Your task to perform on an android device: open app "Viber Messenger" Image 0: 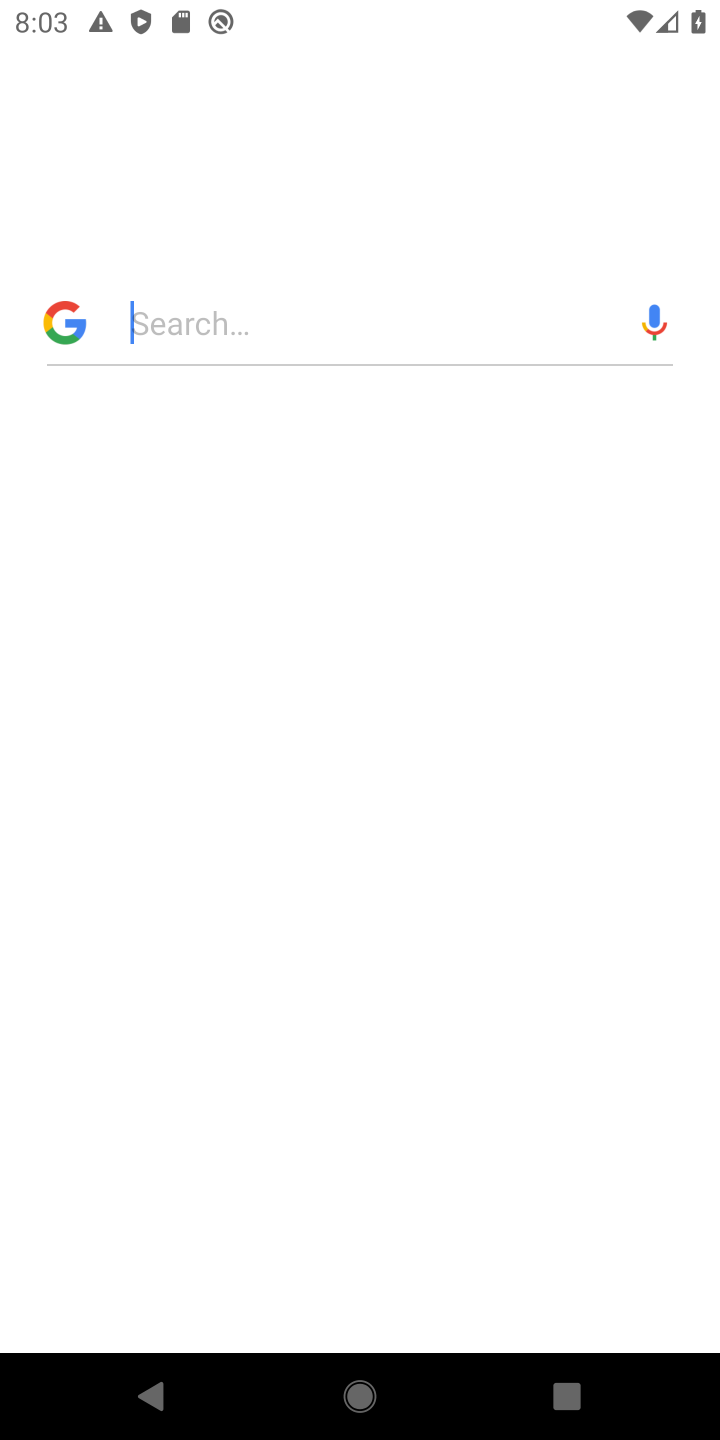
Step 0: press back button
Your task to perform on an android device: open app "Viber Messenger" Image 1: 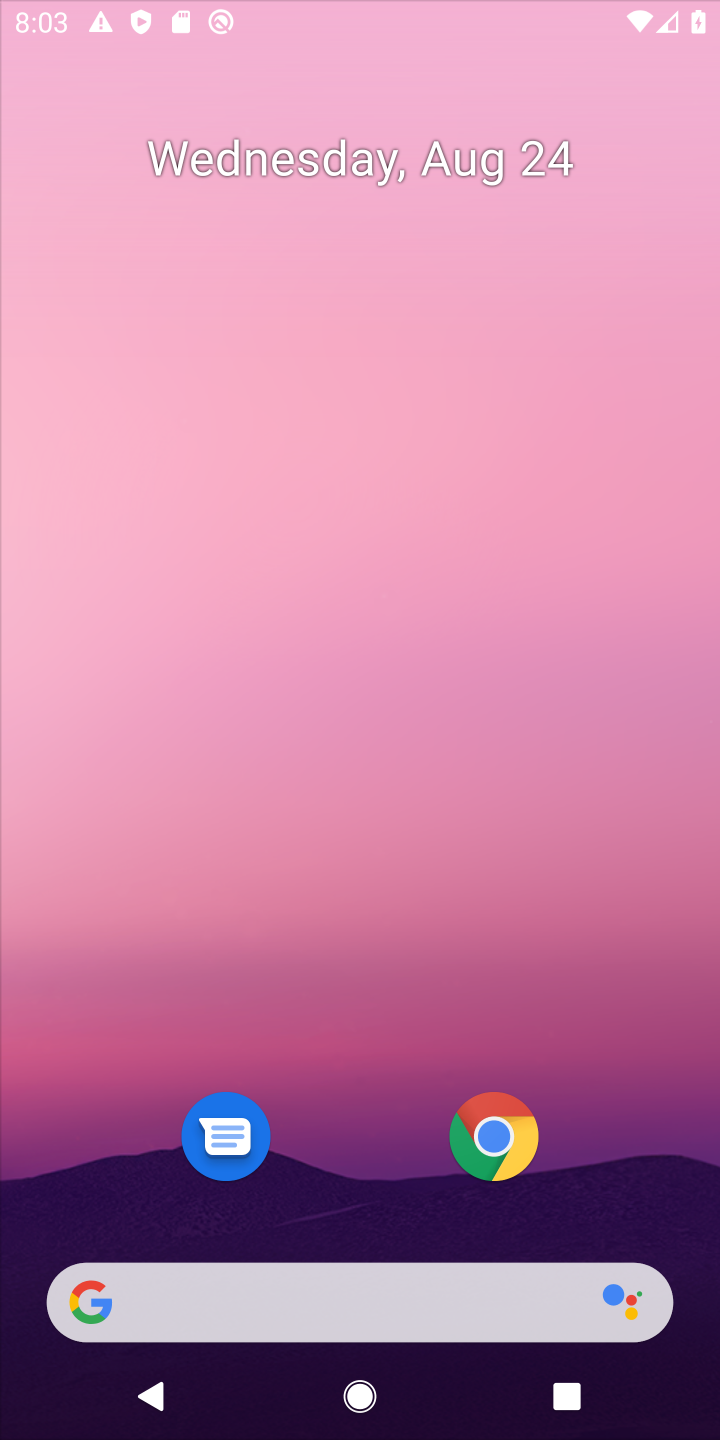
Step 1: press home button
Your task to perform on an android device: open app "Viber Messenger" Image 2: 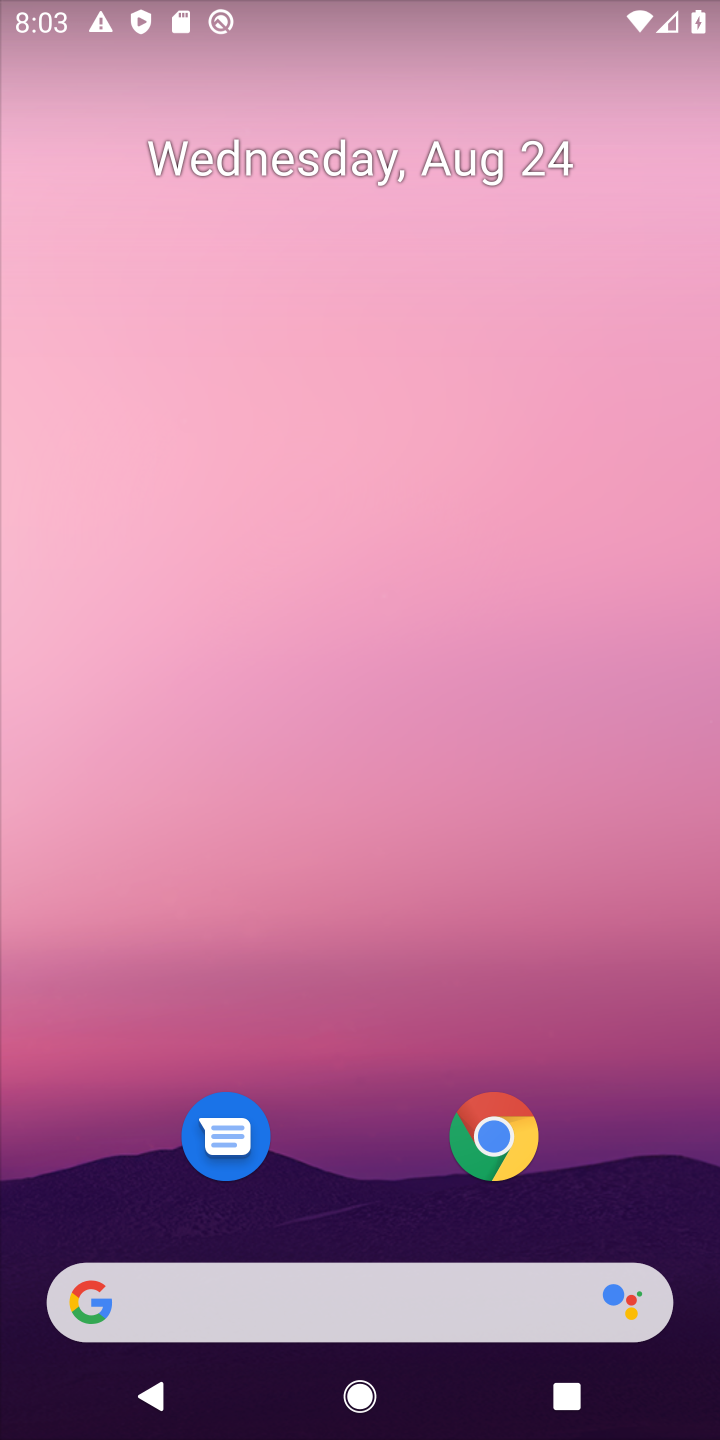
Step 2: drag from (455, 685) to (598, 68)
Your task to perform on an android device: open app "Viber Messenger" Image 3: 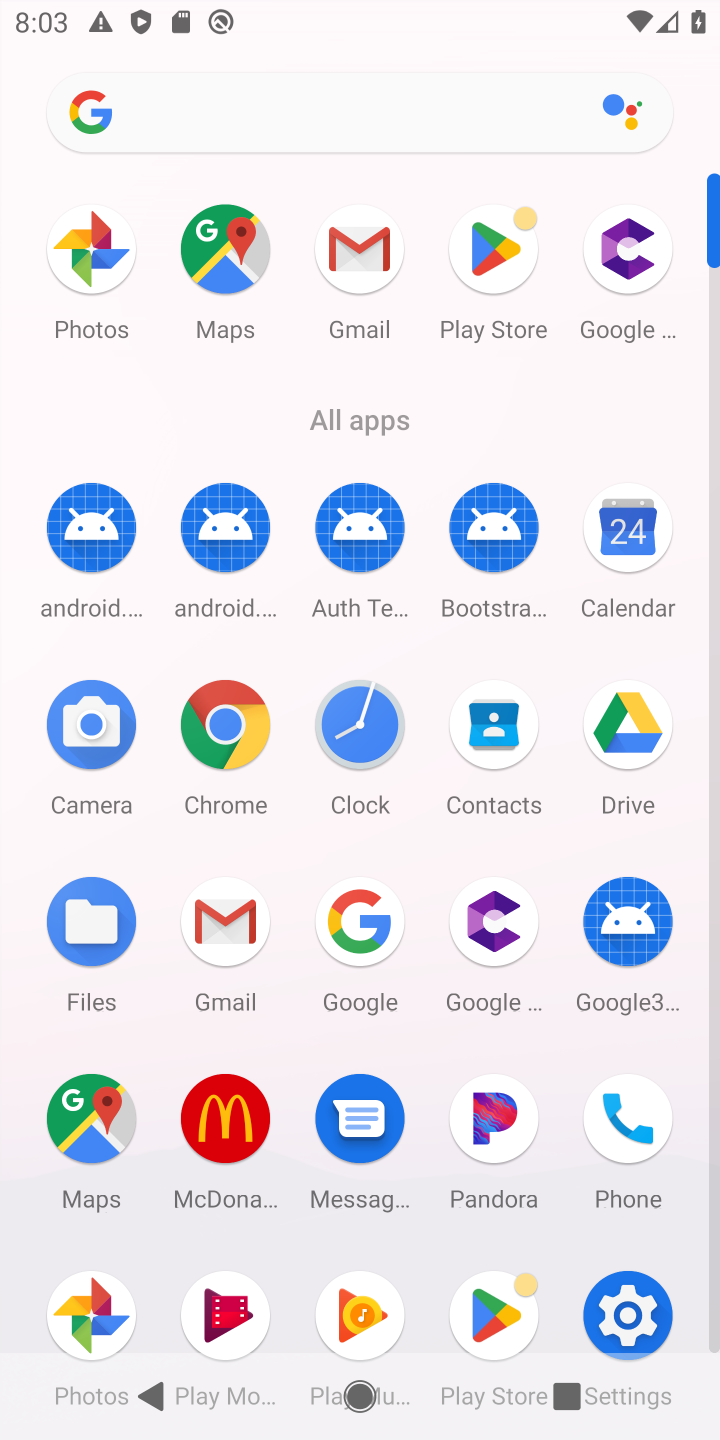
Step 3: click (515, 223)
Your task to perform on an android device: open app "Viber Messenger" Image 4: 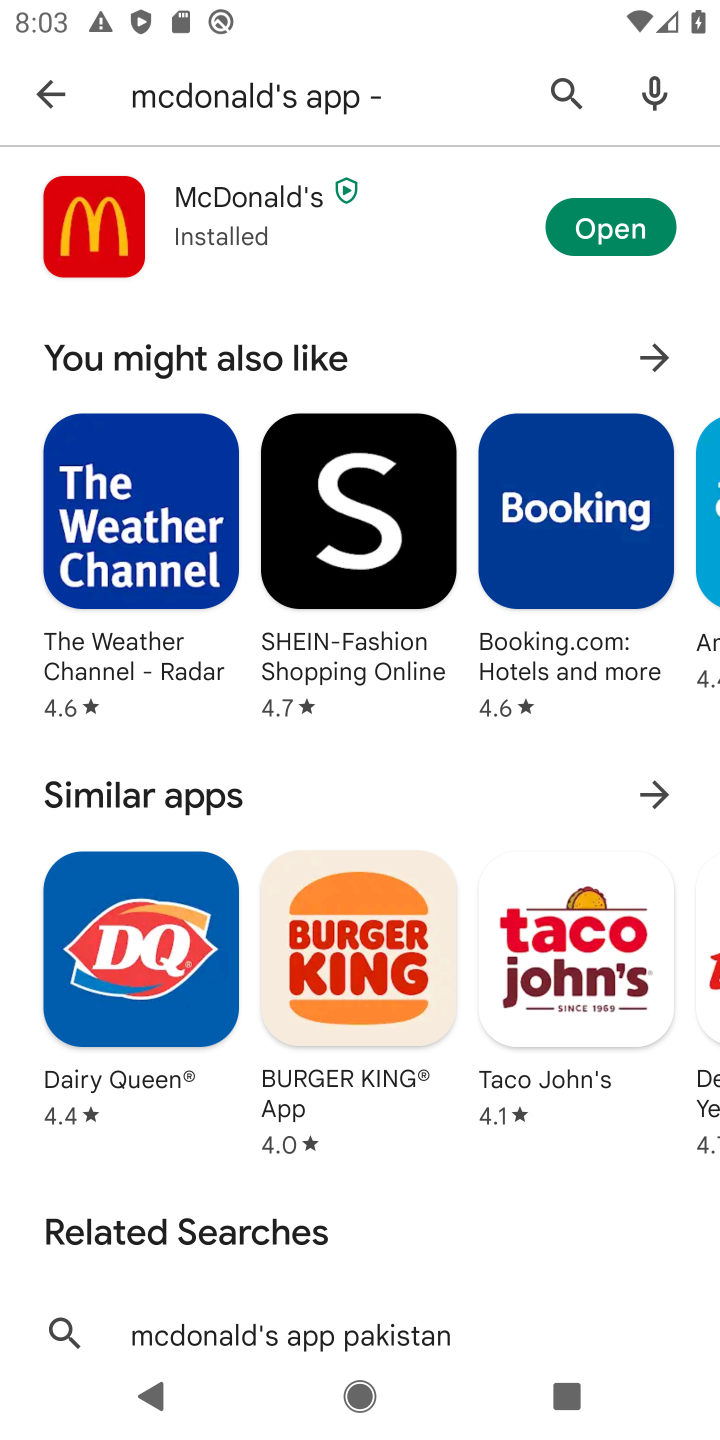
Step 4: click (554, 87)
Your task to perform on an android device: open app "Viber Messenger" Image 5: 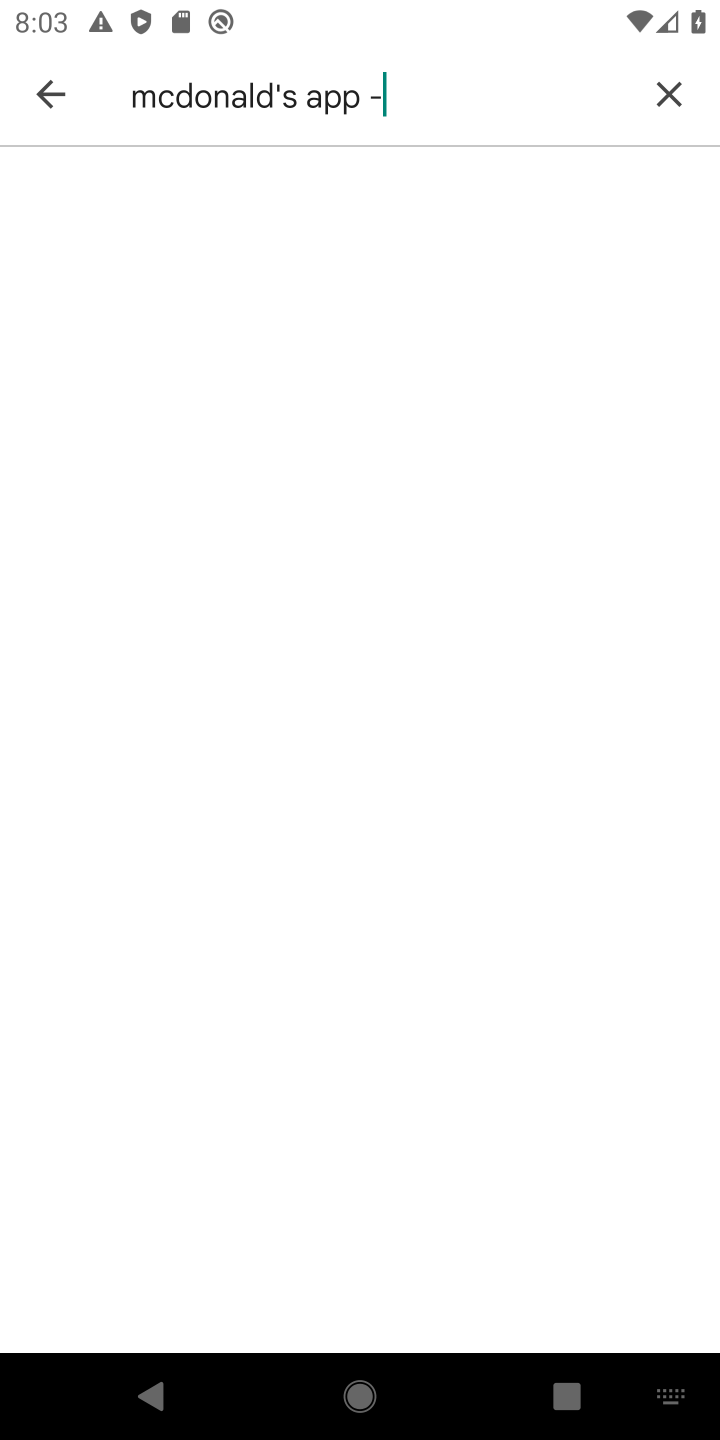
Step 5: click (670, 98)
Your task to perform on an android device: open app "Viber Messenger" Image 6: 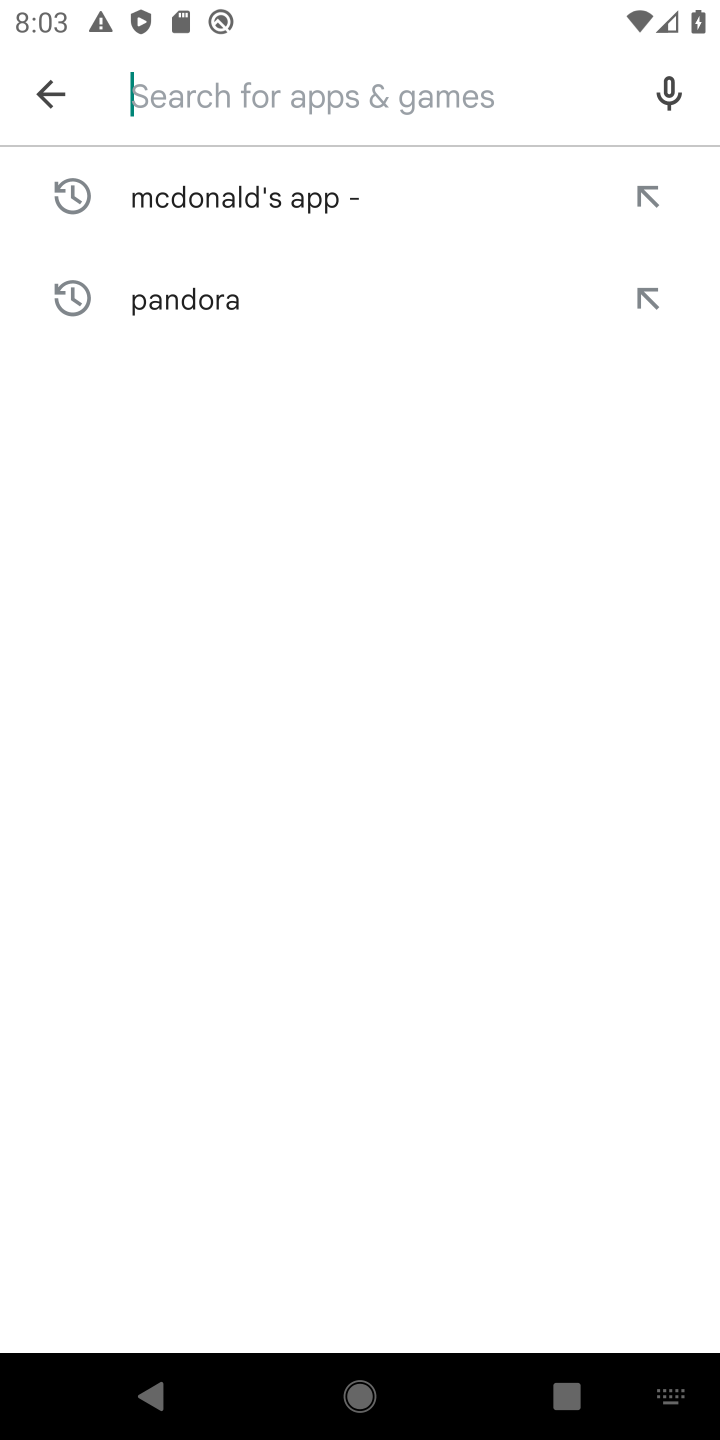
Step 6: click (273, 123)
Your task to perform on an android device: open app "Viber Messenger" Image 7: 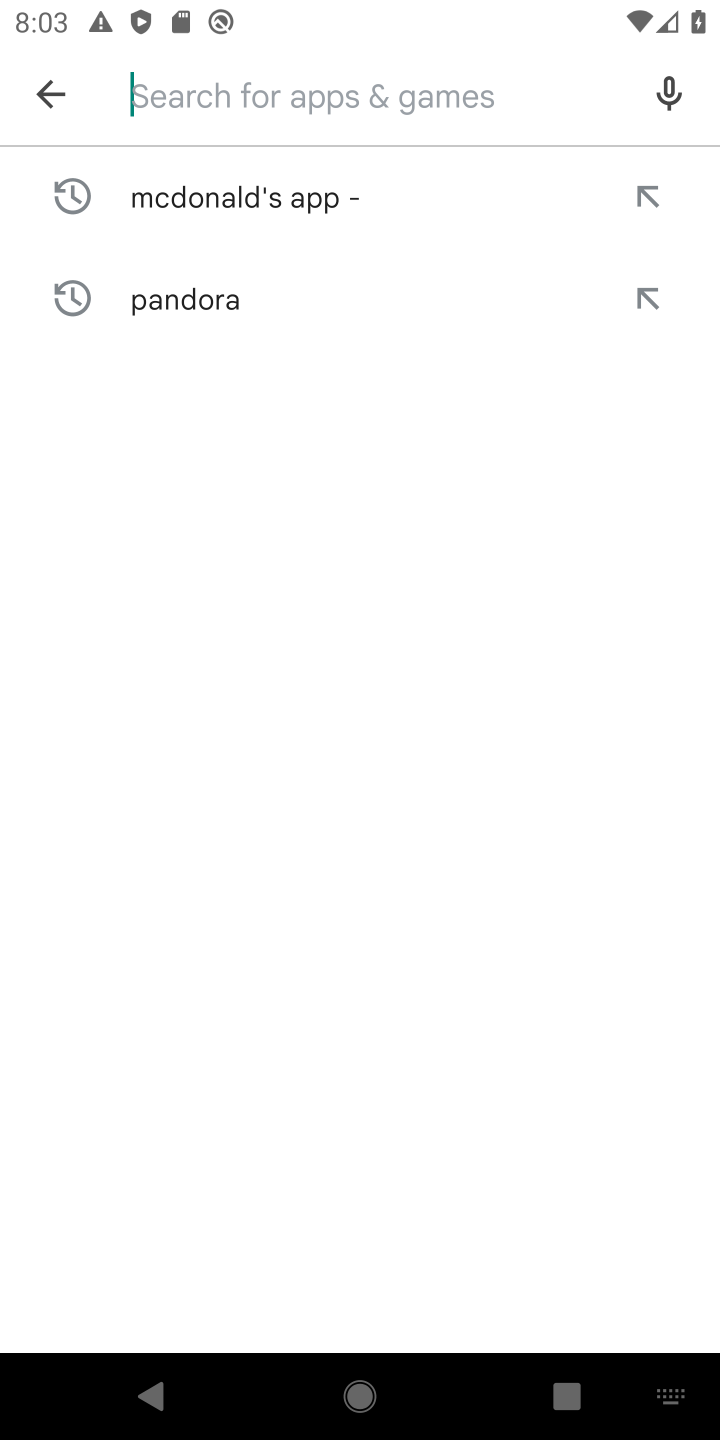
Step 7: type "Viber Messenger"
Your task to perform on an android device: open app "Viber Messenger" Image 8: 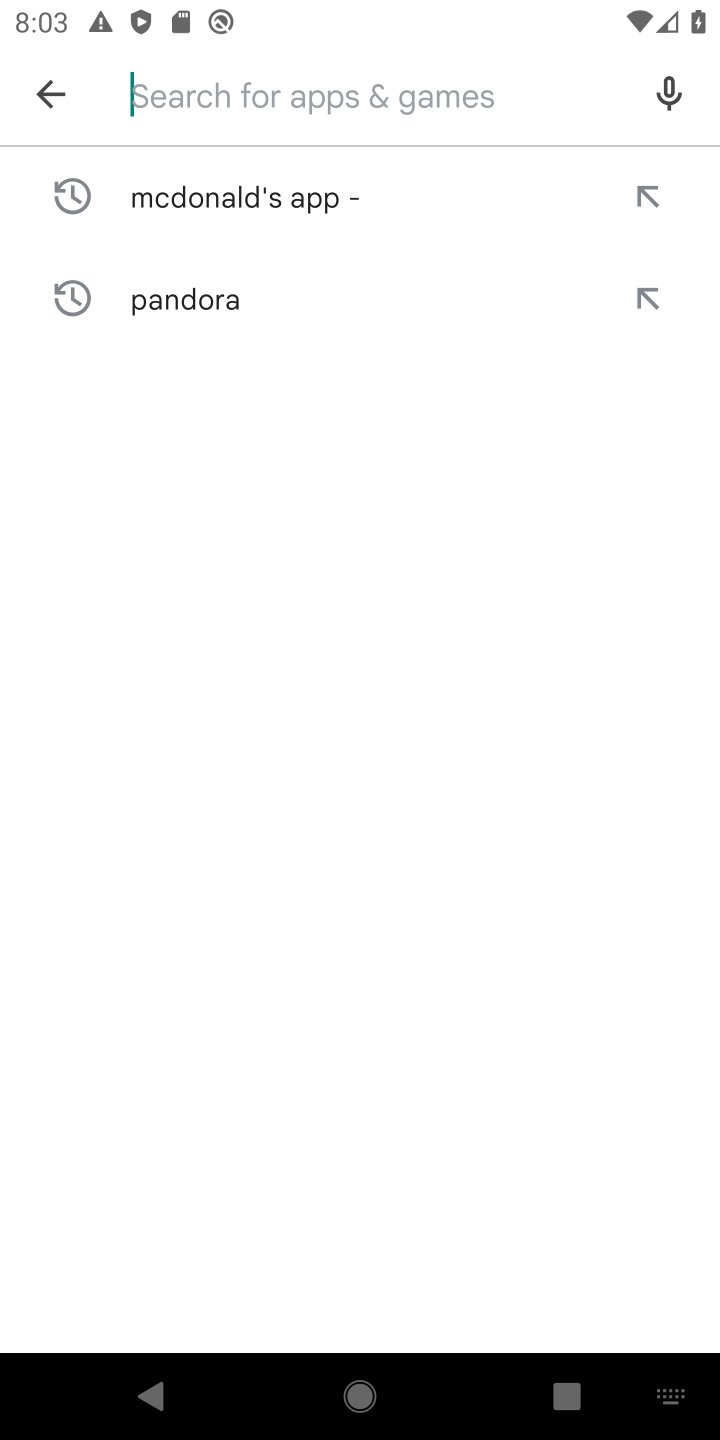
Step 8: click (476, 819)
Your task to perform on an android device: open app "Viber Messenger" Image 9: 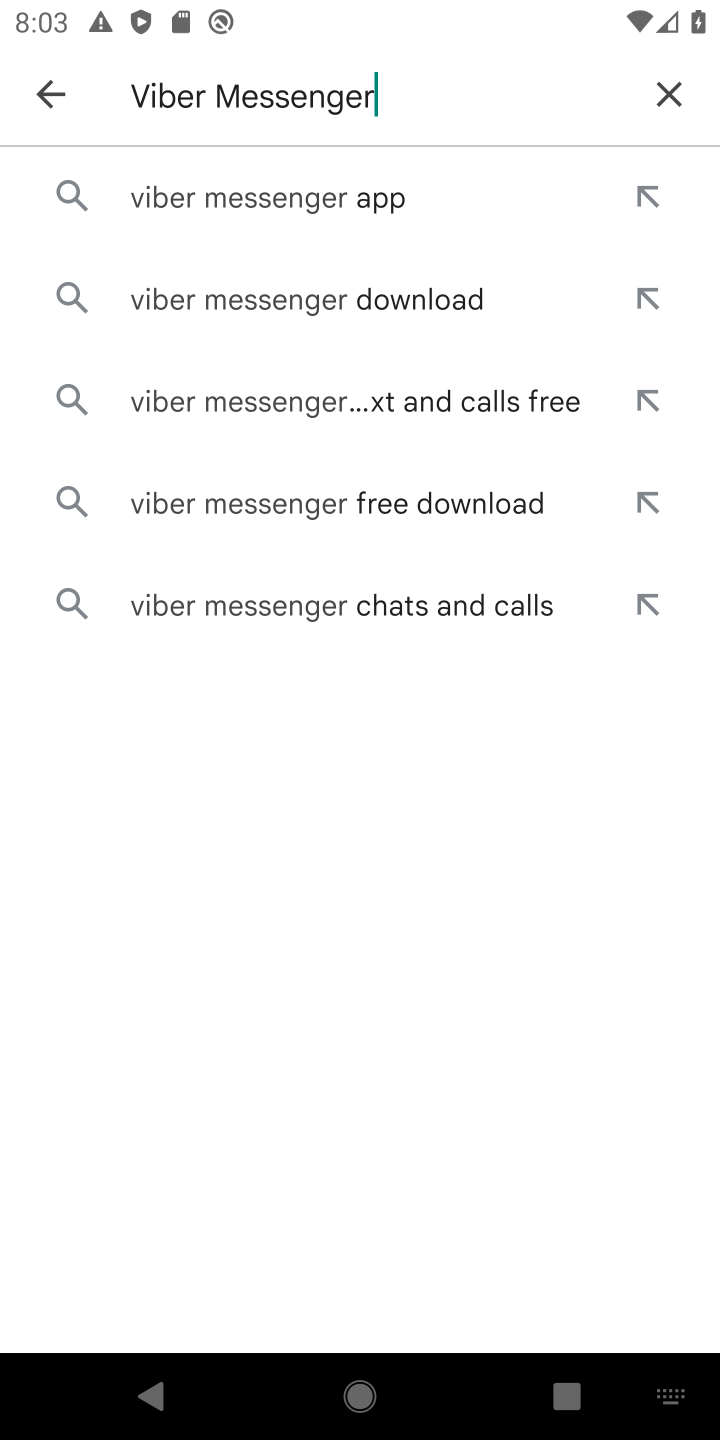
Step 9: click (170, 202)
Your task to perform on an android device: open app "Viber Messenger" Image 10: 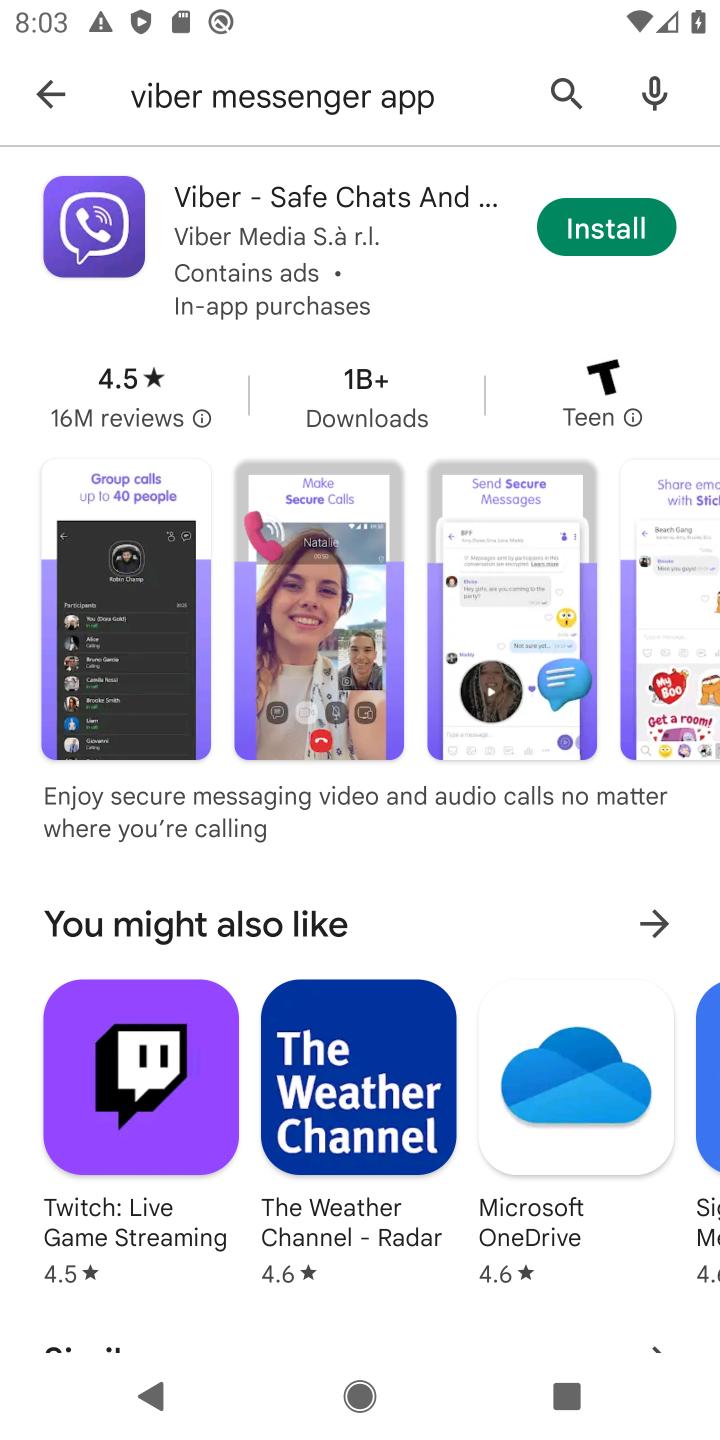
Step 10: task complete